Your task to perform on an android device: What's on my calendar tomorrow? Image 0: 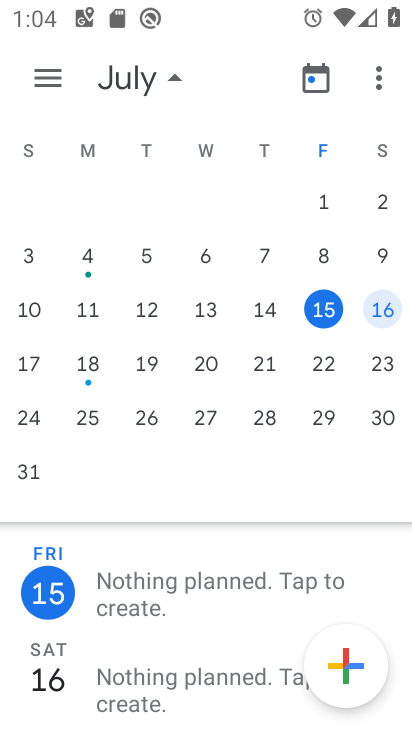
Step 0: press home button
Your task to perform on an android device: What's on my calendar tomorrow? Image 1: 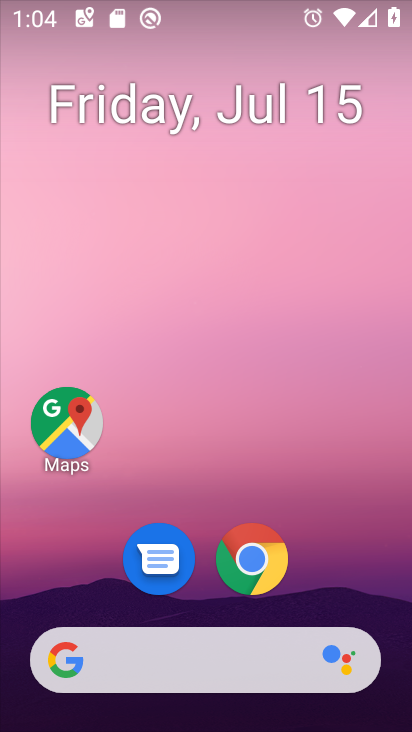
Step 1: drag from (359, 576) to (405, 314)
Your task to perform on an android device: What's on my calendar tomorrow? Image 2: 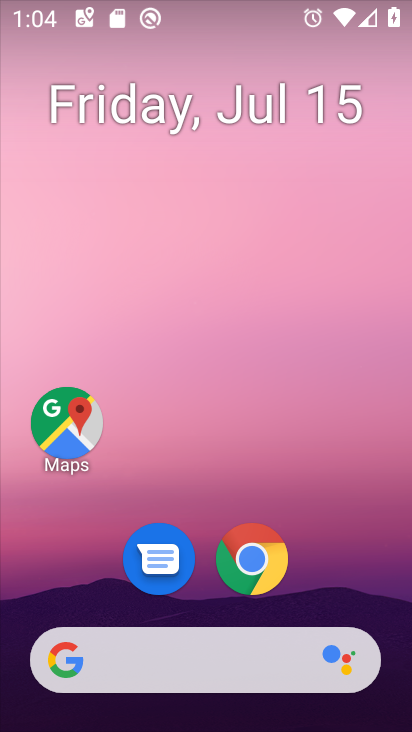
Step 2: drag from (365, 578) to (406, 3)
Your task to perform on an android device: What's on my calendar tomorrow? Image 3: 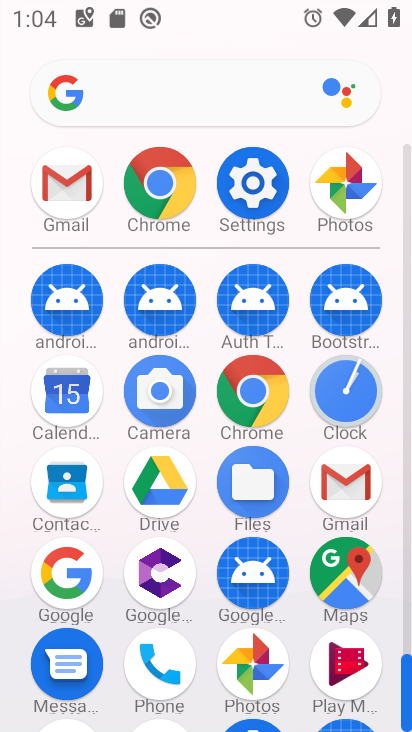
Step 3: click (70, 414)
Your task to perform on an android device: What's on my calendar tomorrow? Image 4: 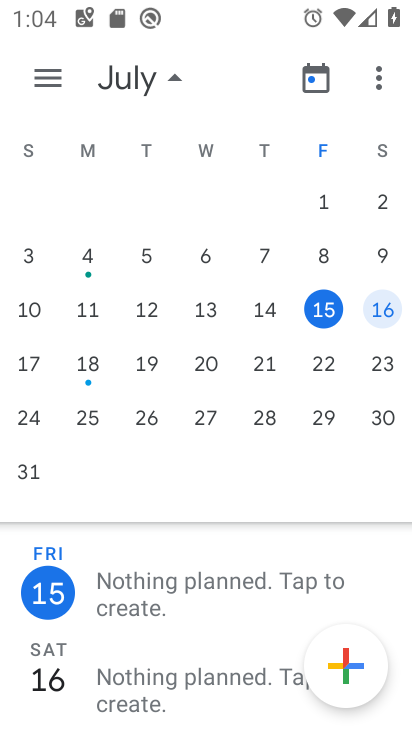
Step 4: click (386, 307)
Your task to perform on an android device: What's on my calendar tomorrow? Image 5: 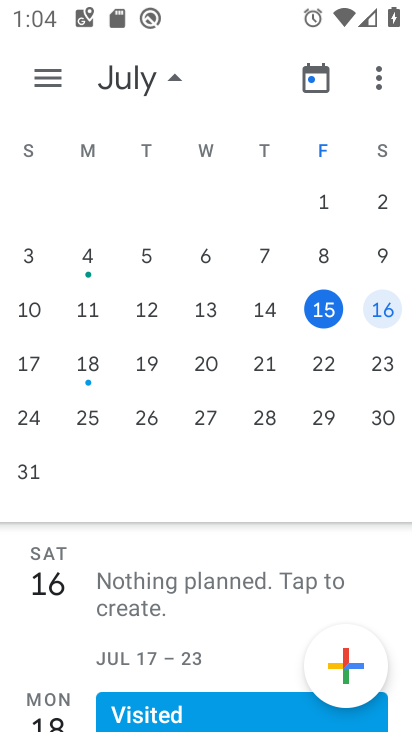
Step 5: drag from (221, 600) to (219, 462)
Your task to perform on an android device: What's on my calendar tomorrow? Image 6: 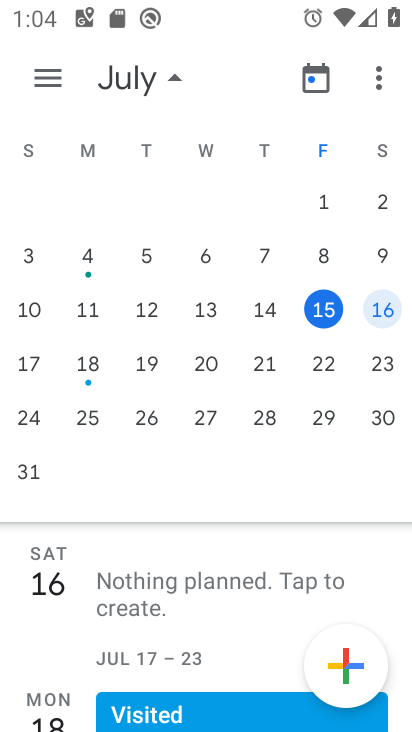
Step 6: click (151, 597)
Your task to perform on an android device: What's on my calendar tomorrow? Image 7: 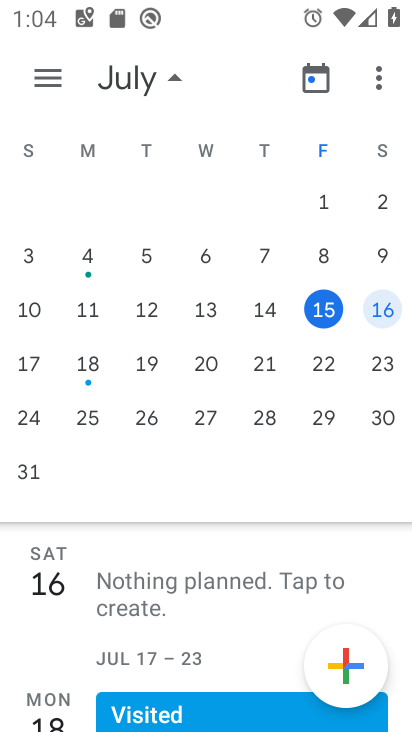
Step 7: click (151, 597)
Your task to perform on an android device: What's on my calendar tomorrow? Image 8: 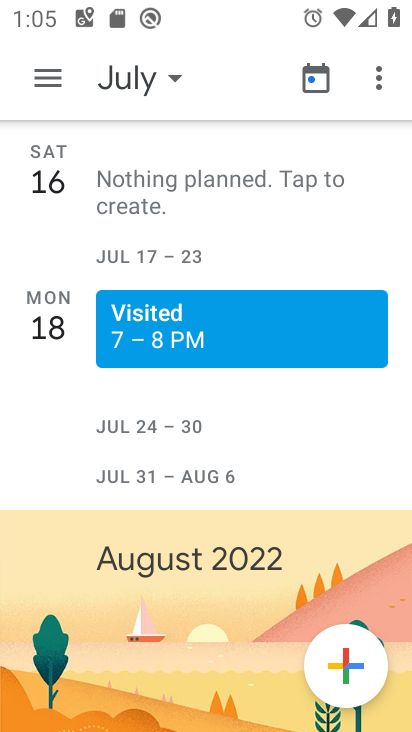
Step 8: task complete